Your task to perform on an android device: Open location settings Image 0: 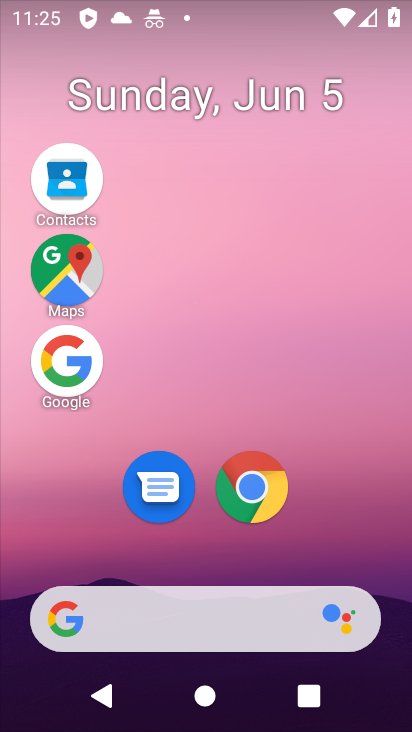
Step 0: drag from (227, 627) to (248, 107)
Your task to perform on an android device: Open location settings Image 1: 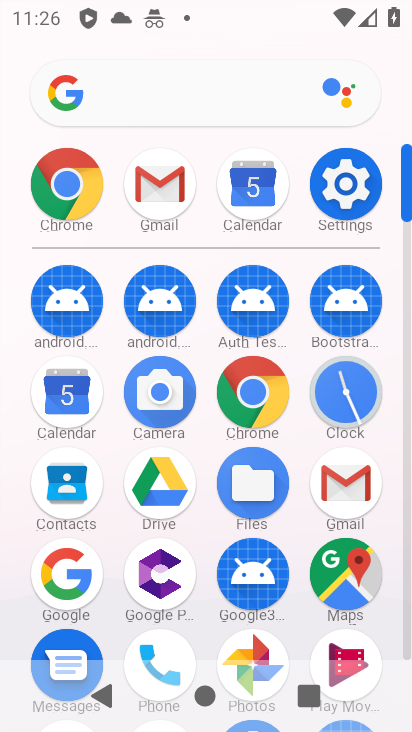
Step 1: click (335, 196)
Your task to perform on an android device: Open location settings Image 2: 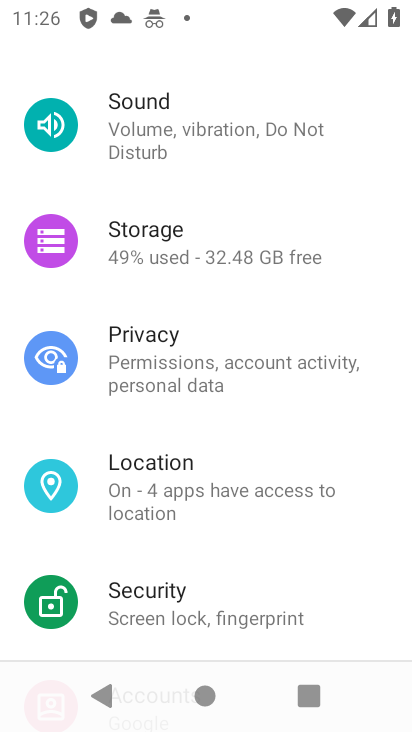
Step 2: click (207, 463)
Your task to perform on an android device: Open location settings Image 3: 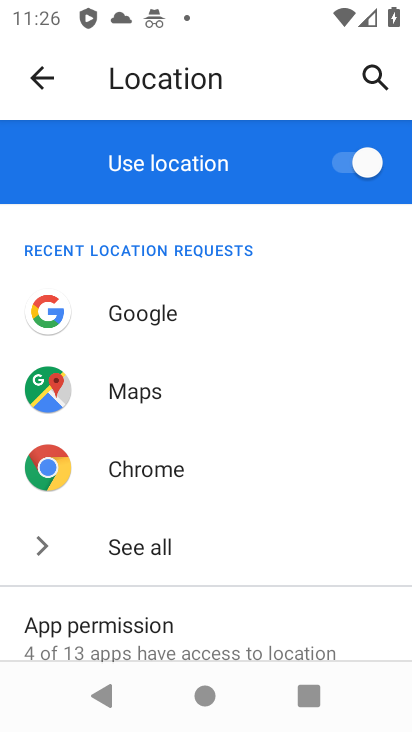
Step 3: task complete